Your task to perform on an android device: Open CNN.com Image 0: 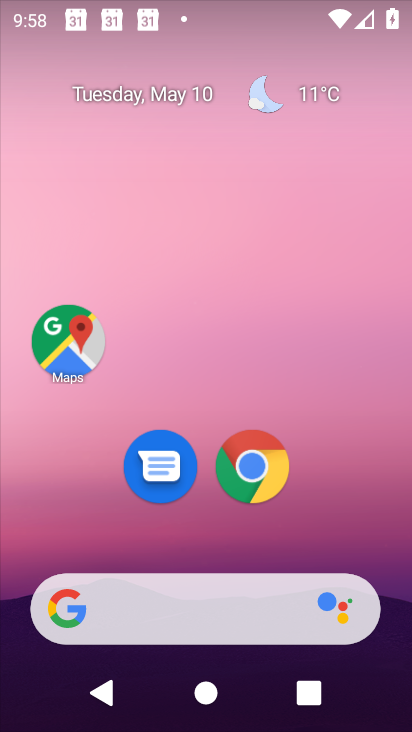
Step 0: click (257, 464)
Your task to perform on an android device: Open CNN.com Image 1: 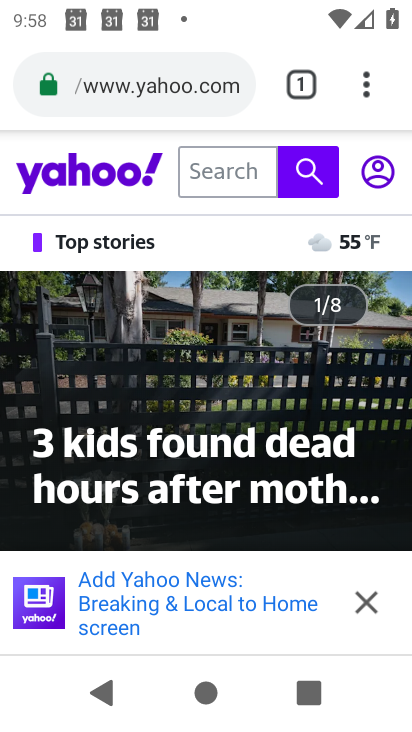
Step 1: click (198, 74)
Your task to perform on an android device: Open CNN.com Image 2: 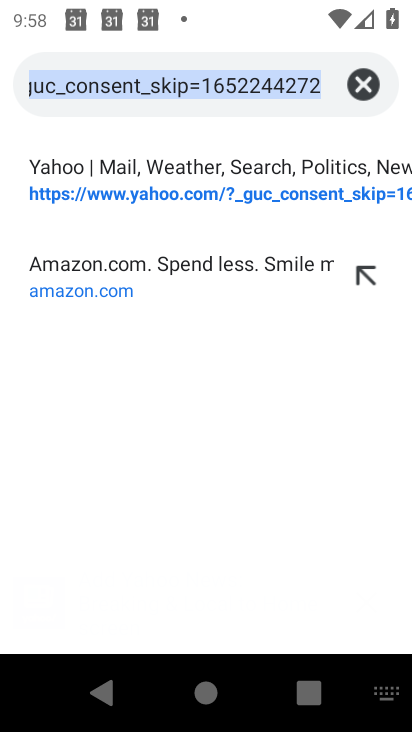
Step 2: type "cnn.com"
Your task to perform on an android device: Open CNN.com Image 3: 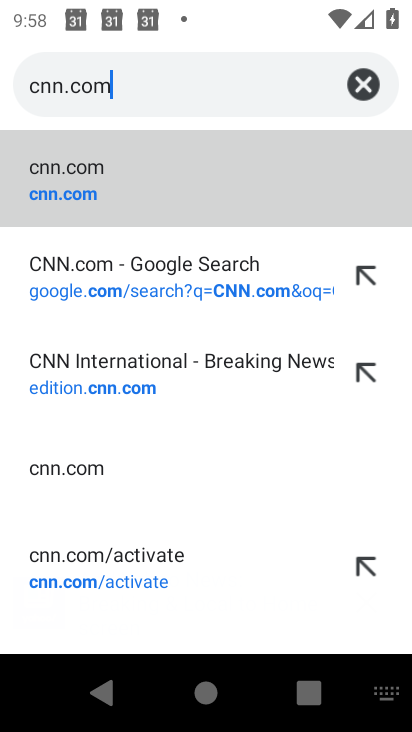
Step 3: click (60, 189)
Your task to perform on an android device: Open CNN.com Image 4: 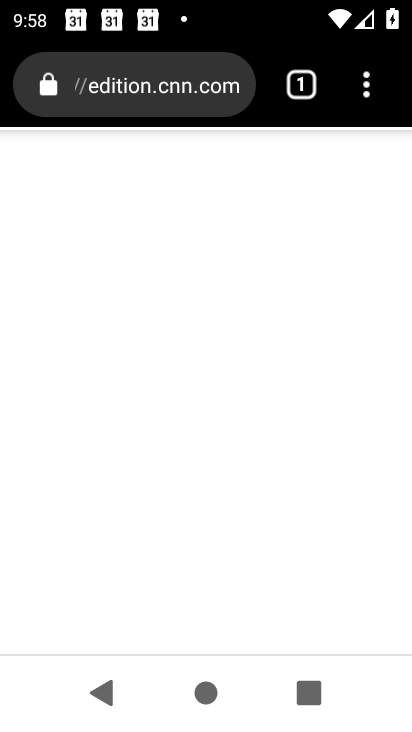
Step 4: task complete